Your task to perform on an android device: turn pop-ups off in chrome Image 0: 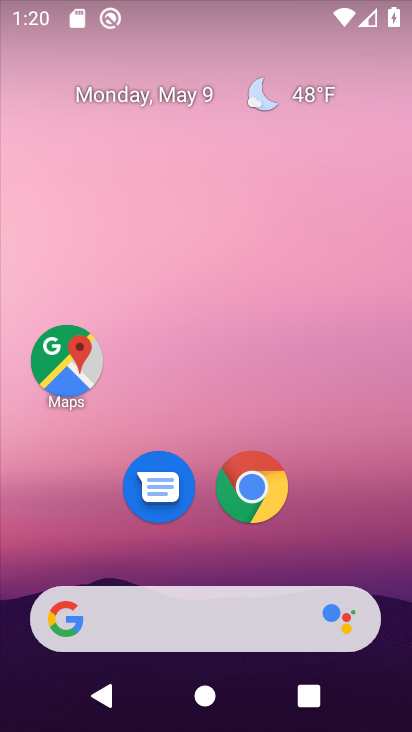
Step 0: click (250, 495)
Your task to perform on an android device: turn pop-ups off in chrome Image 1: 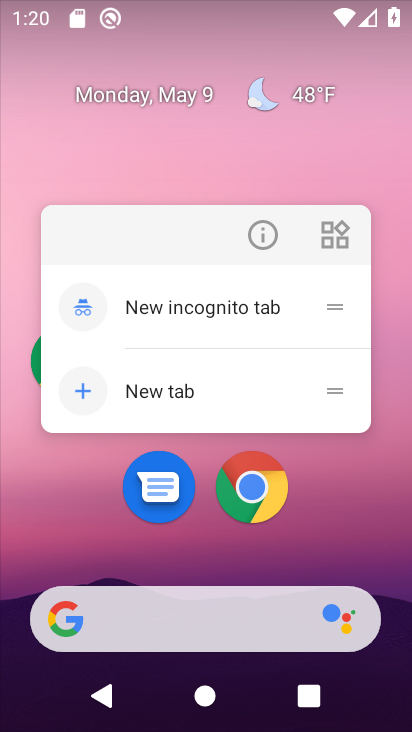
Step 1: click (241, 498)
Your task to perform on an android device: turn pop-ups off in chrome Image 2: 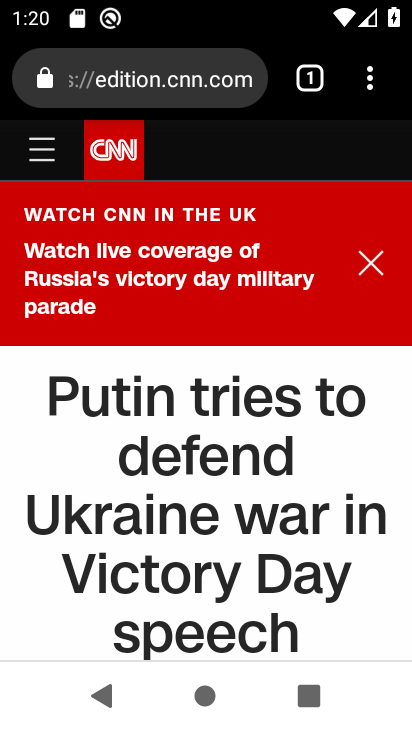
Step 2: click (352, 78)
Your task to perform on an android device: turn pop-ups off in chrome Image 3: 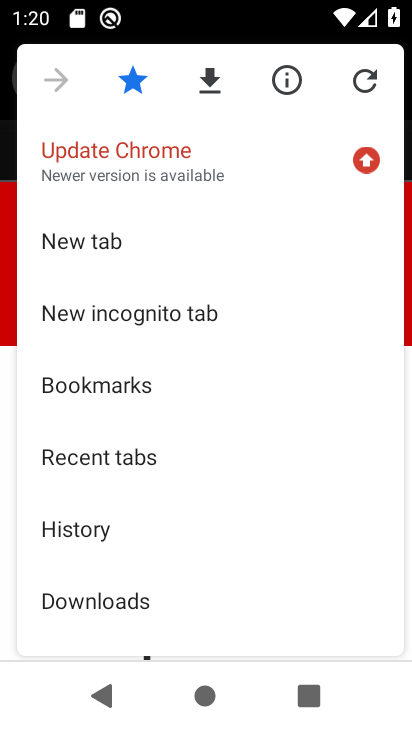
Step 3: drag from (84, 610) to (126, 324)
Your task to perform on an android device: turn pop-ups off in chrome Image 4: 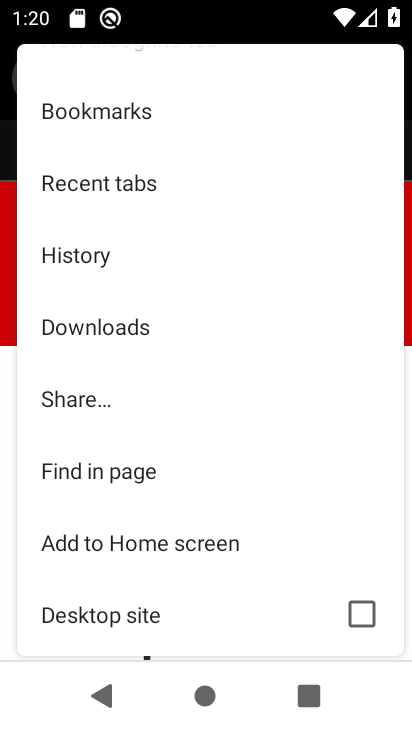
Step 4: drag from (124, 626) to (124, 304)
Your task to perform on an android device: turn pop-ups off in chrome Image 5: 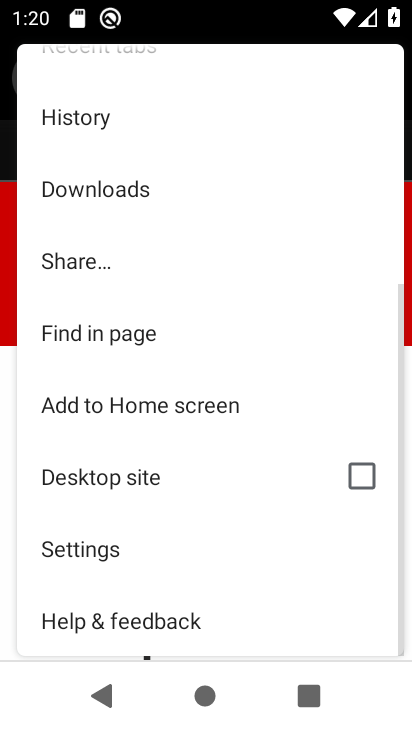
Step 5: click (100, 547)
Your task to perform on an android device: turn pop-ups off in chrome Image 6: 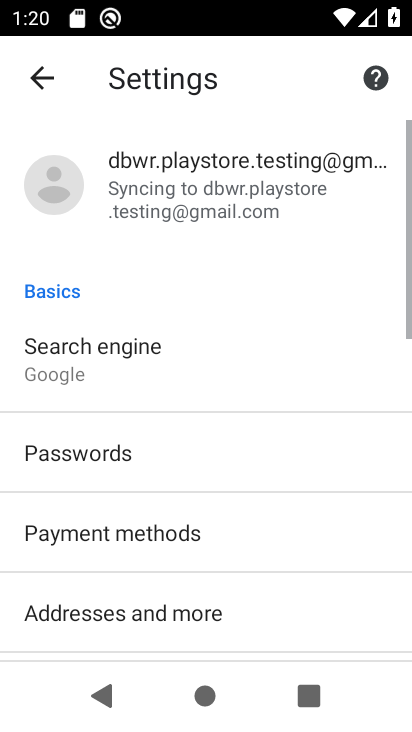
Step 6: click (152, 298)
Your task to perform on an android device: turn pop-ups off in chrome Image 7: 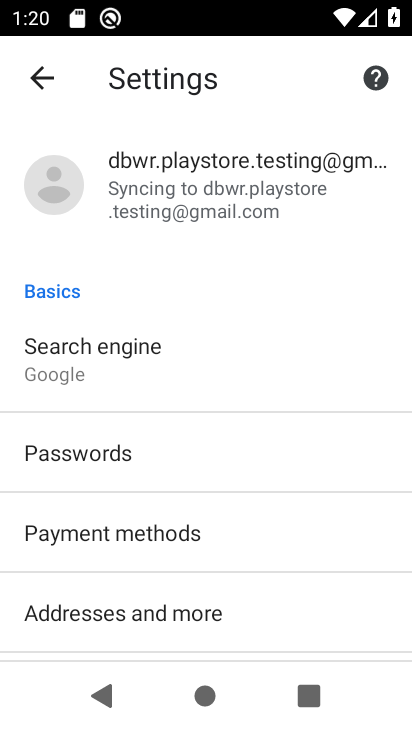
Step 7: drag from (142, 622) to (182, 261)
Your task to perform on an android device: turn pop-ups off in chrome Image 8: 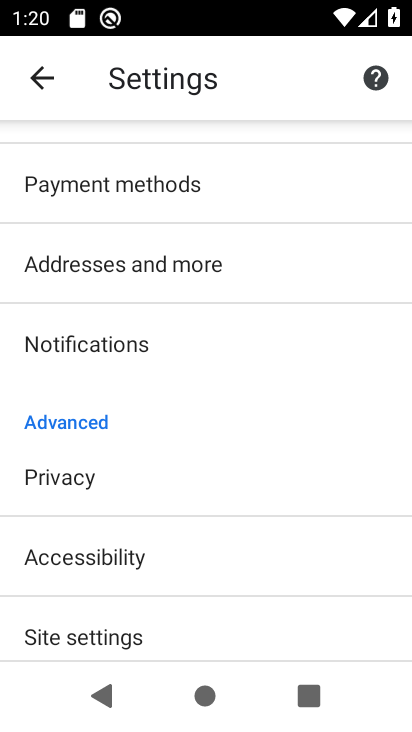
Step 8: drag from (120, 643) to (156, 266)
Your task to perform on an android device: turn pop-ups off in chrome Image 9: 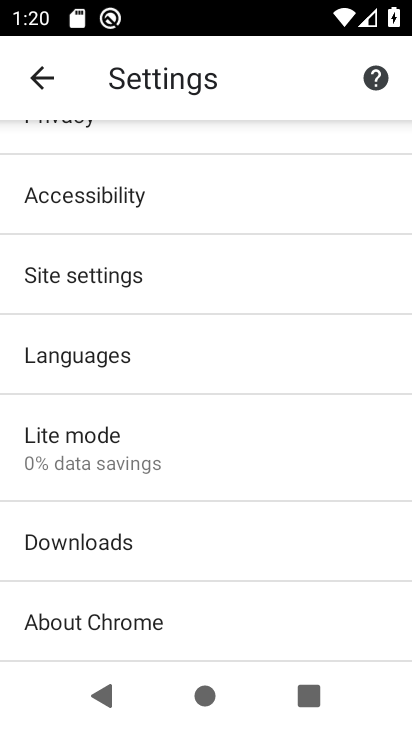
Step 9: click (101, 273)
Your task to perform on an android device: turn pop-ups off in chrome Image 10: 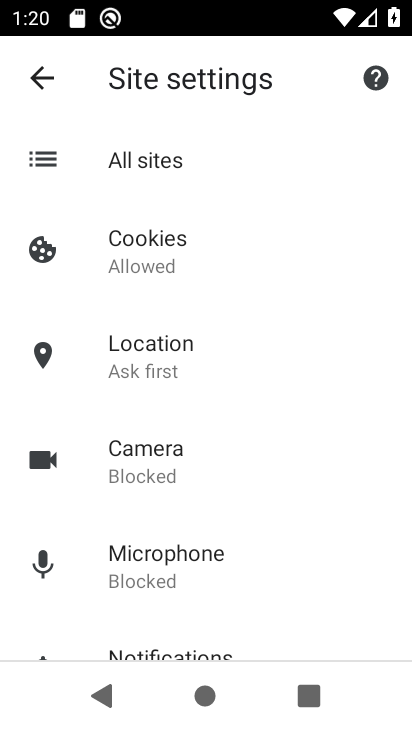
Step 10: drag from (157, 653) to (193, 242)
Your task to perform on an android device: turn pop-ups off in chrome Image 11: 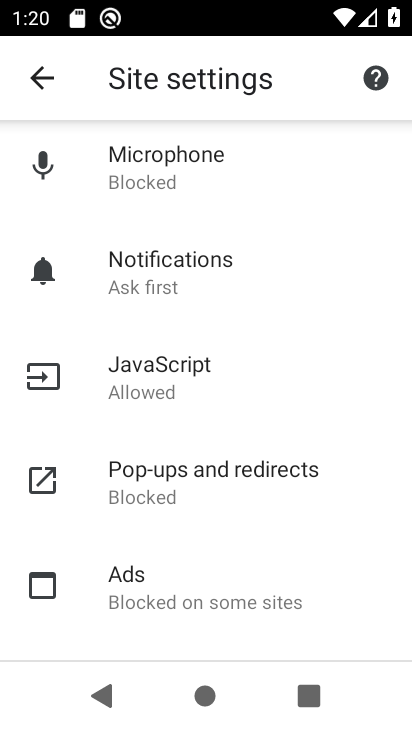
Step 11: click (193, 472)
Your task to perform on an android device: turn pop-ups off in chrome Image 12: 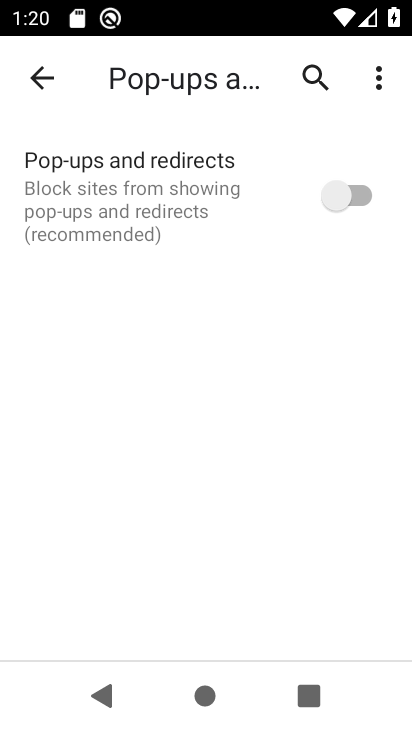
Step 12: task complete